Your task to perform on an android device: open app "Google Sheets" Image 0: 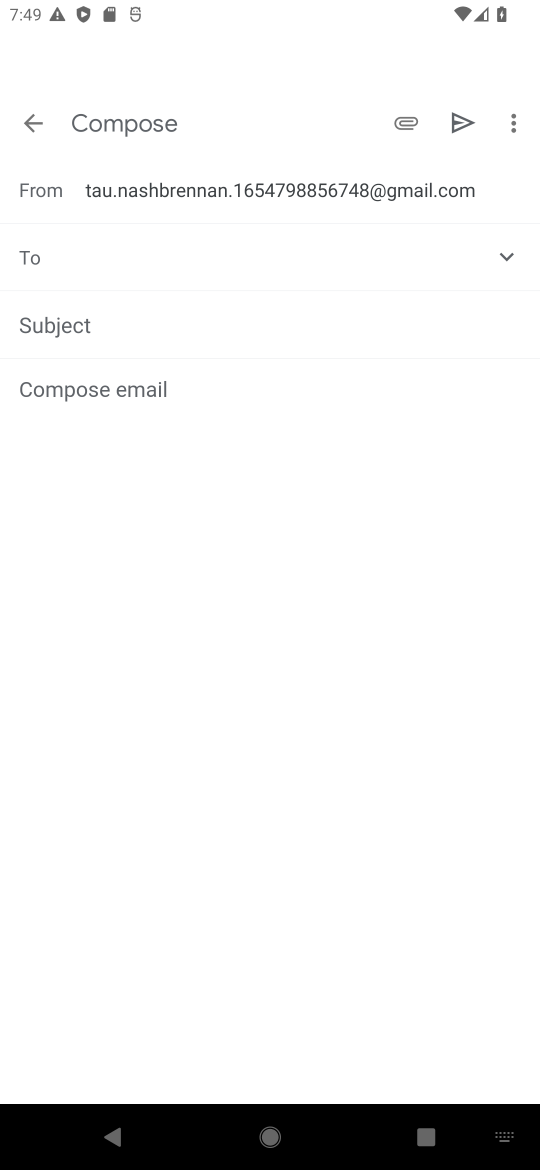
Step 0: press home button
Your task to perform on an android device: open app "Google Sheets" Image 1: 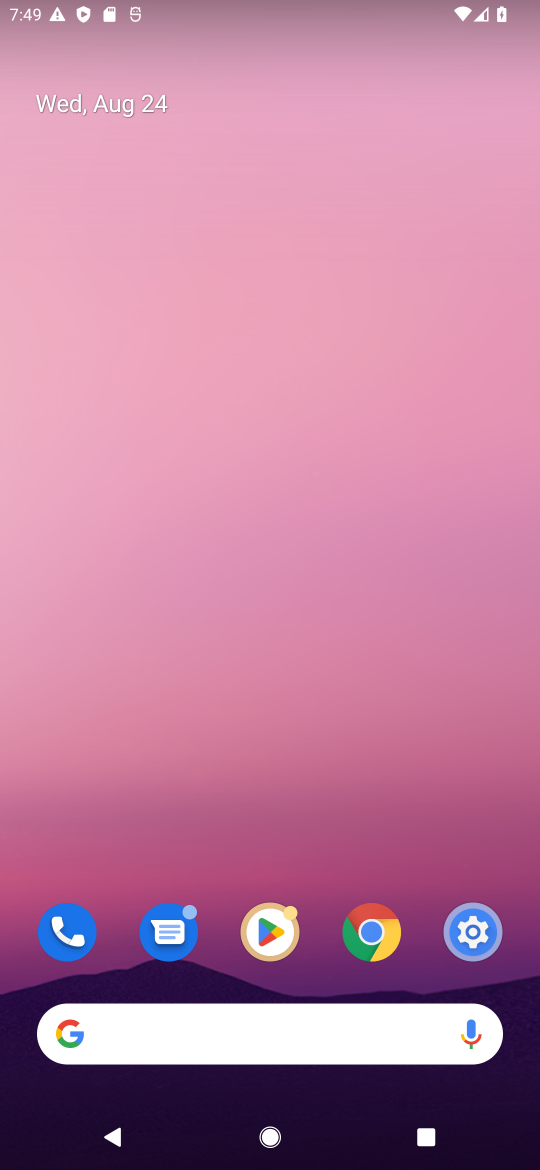
Step 1: click (265, 951)
Your task to perform on an android device: open app "Google Sheets" Image 2: 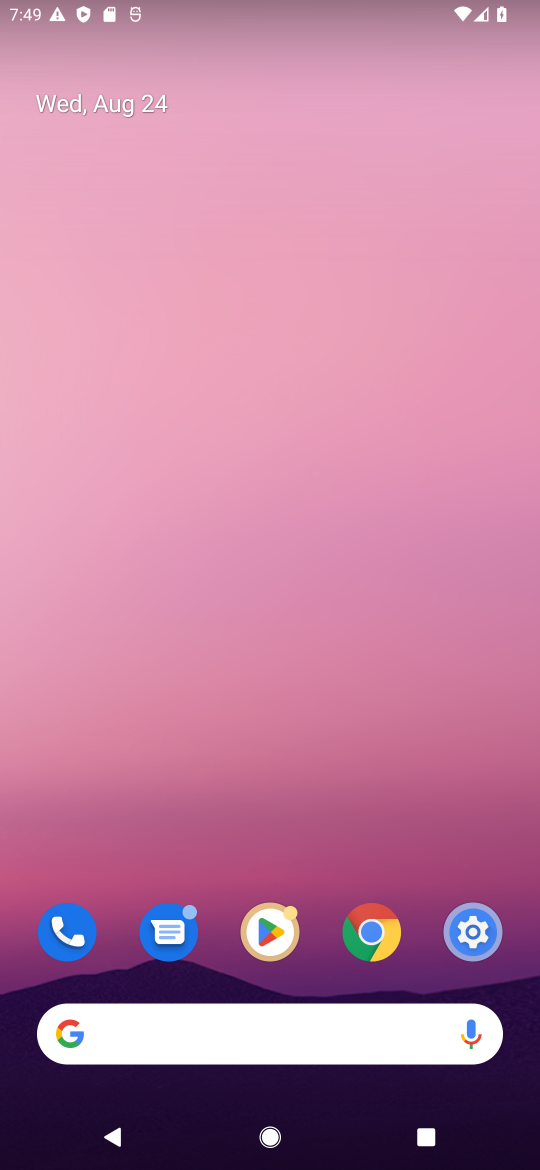
Step 2: click (253, 937)
Your task to perform on an android device: open app "Google Sheets" Image 3: 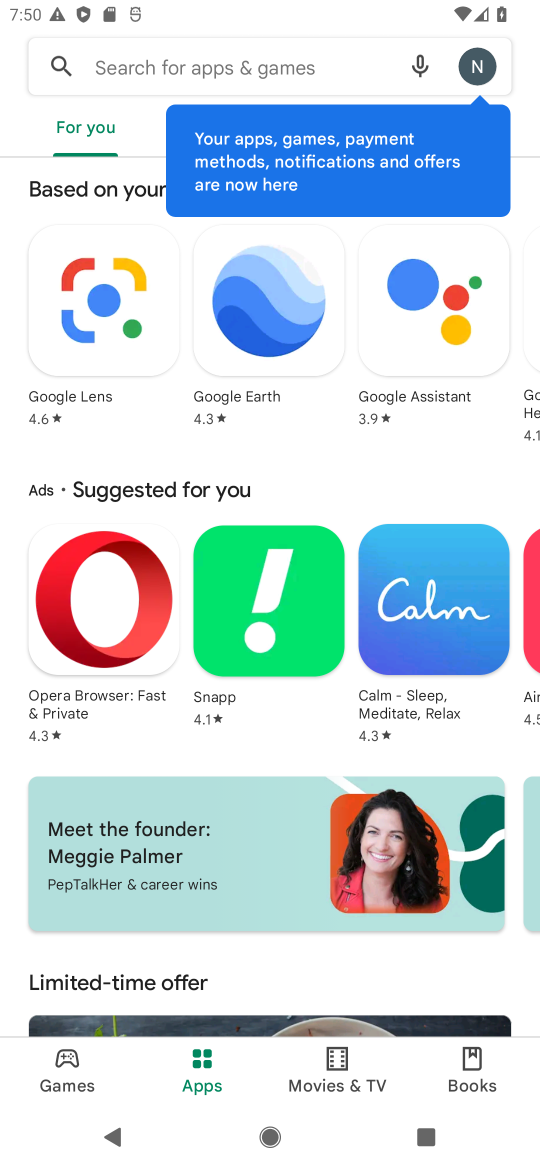
Step 3: click (200, 68)
Your task to perform on an android device: open app "Google Sheets" Image 4: 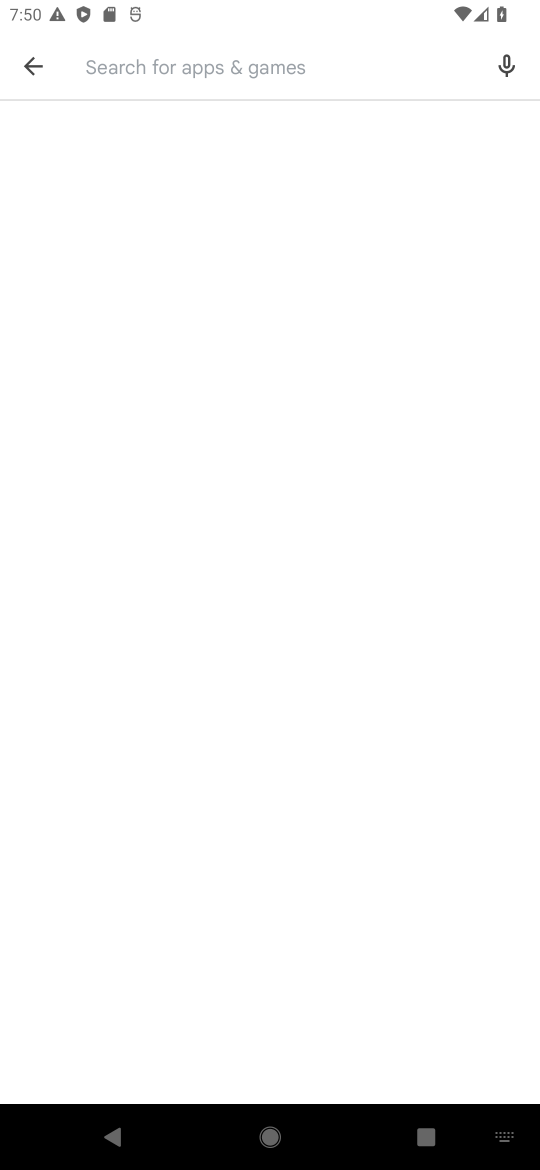
Step 4: type "google sheets"
Your task to perform on an android device: open app "Google Sheets" Image 5: 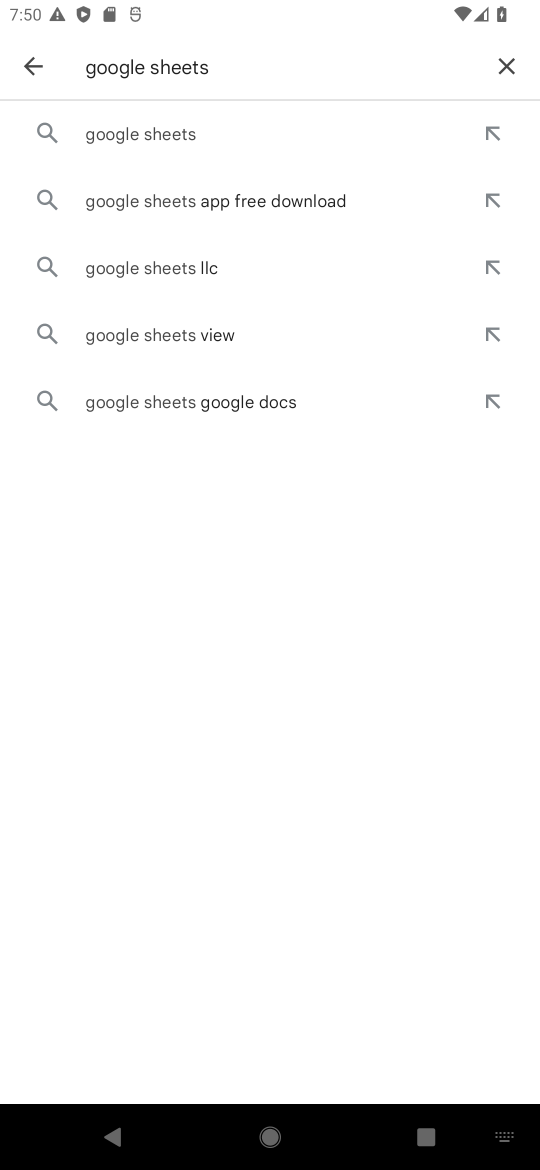
Step 5: click (176, 122)
Your task to perform on an android device: open app "Google Sheets" Image 6: 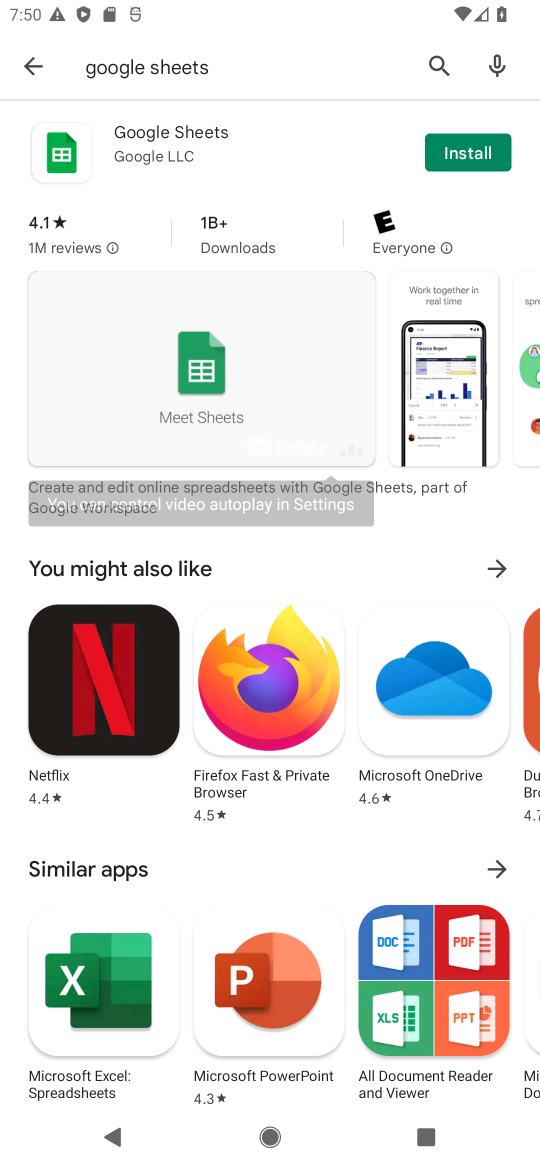
Step 6: task complete